Your task to perform on an android device: delete a single message in the gmail app Image 0: 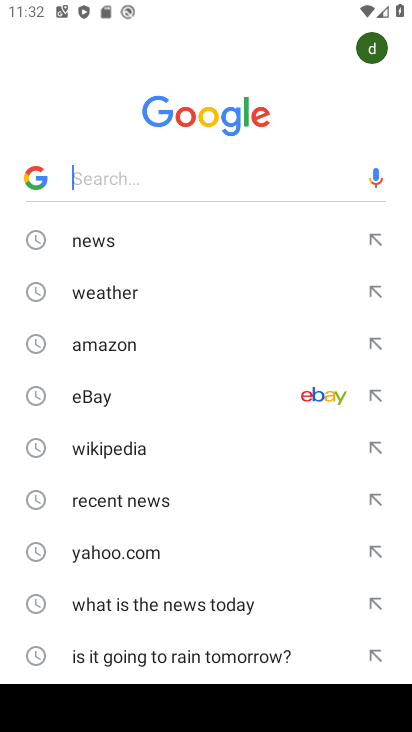
Step 0: press home button
Your task to perform on an android device: delete a single message in the gmail app Image 1: 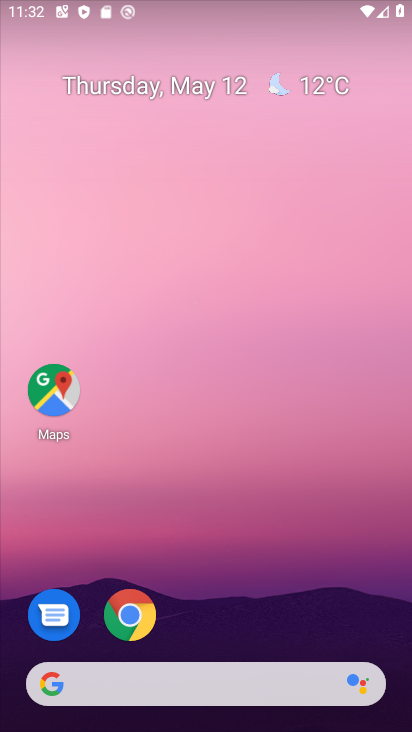
Step 1: drag from (227, 603) to (258, 170)
Your task to perform on an android device: delete a single message in the gmail app Image 2: 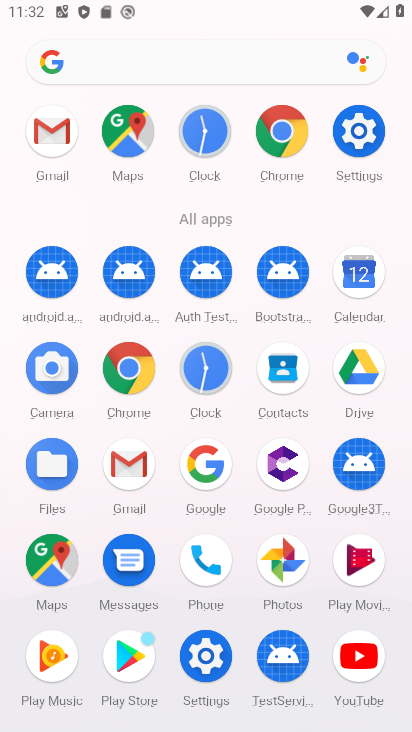
Step 2: click (47, 136)
Your task to perform on an android device: delete a single message in the gmail app Image 3: 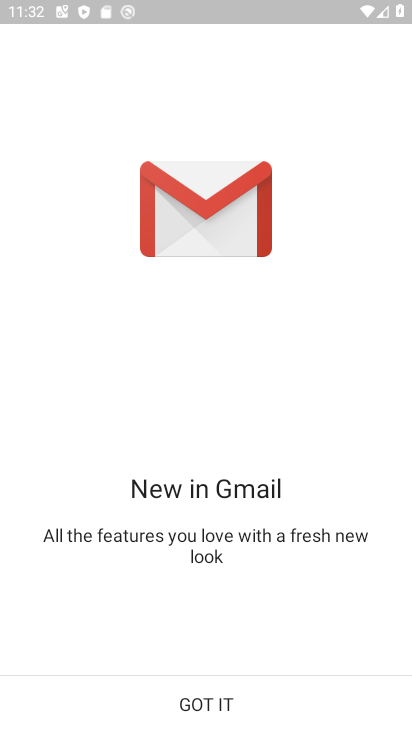
Step 3: click (252, 687)
Your task to perform on an android device: delete a single message in the gmail app Image 4: 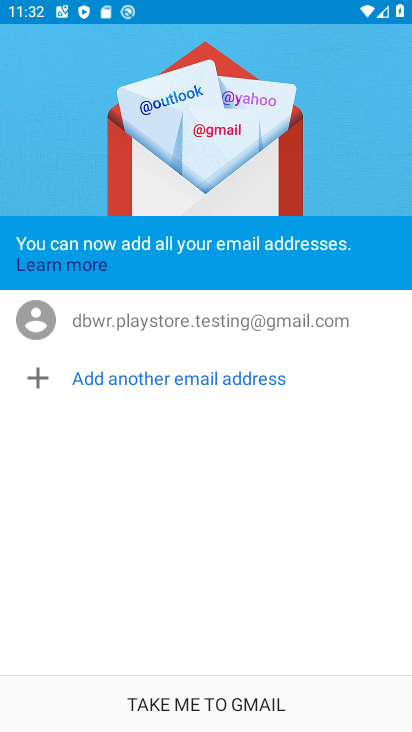
Step 4: click (255, 685)
Your task to perform on an android device: delete a single message in the gmail app Image 5: 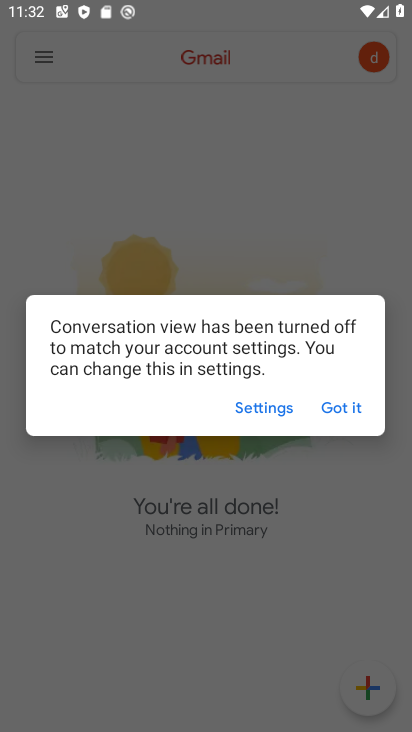
Step 5: click (335, 413)
Your task to perform on an android device: delete a single message in the gmail app Image 6: 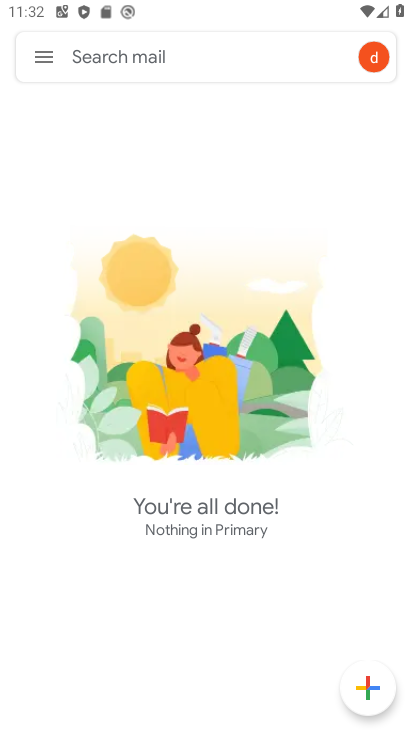
Step 6: click (40, 56)
Your task to perform on an android device: delete a single message in the gmail app Image 7: 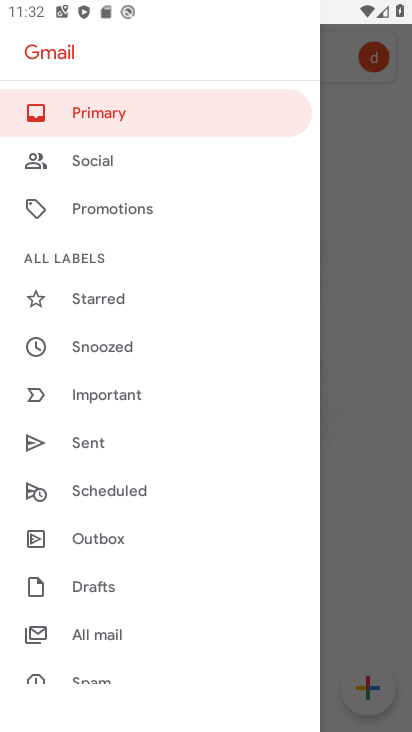
Step 7: click (195, 616)
Your task to perform on an android device: delete a single message in the gmail app Image 8: 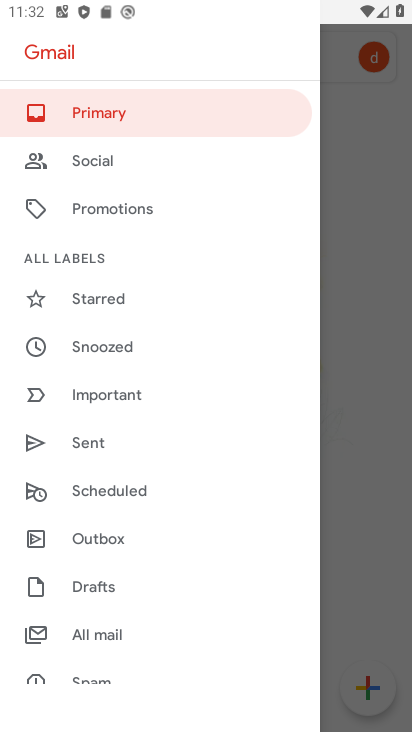
Step 8: click (92, 633)
Your task to perform on an android device: delete a single message in the gmail app Image 9: 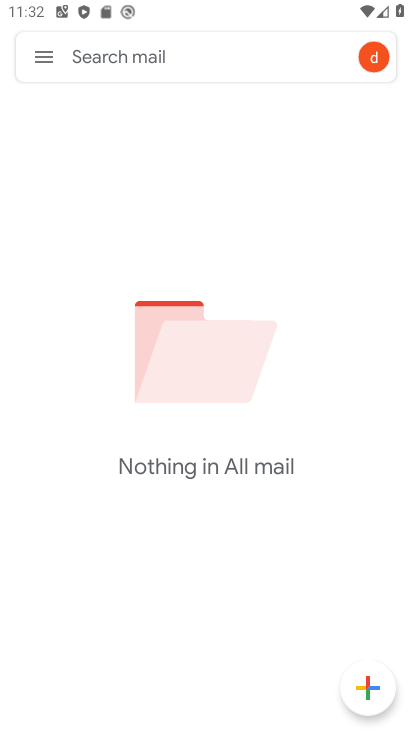
Step 9: task complete